Your task to perform on an android device: Open calendar and show me the first week of next month Image 0: 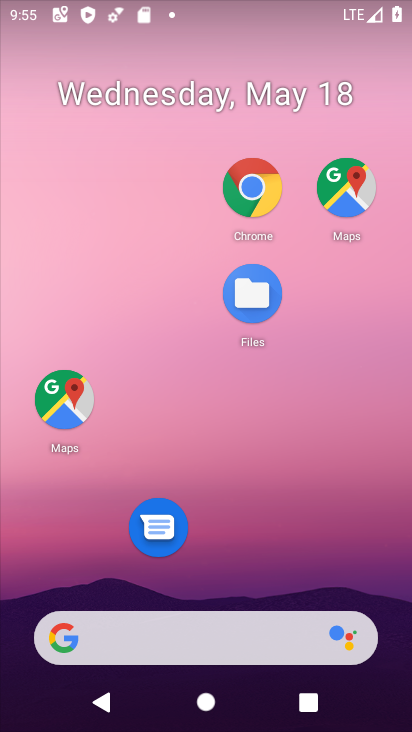
Step 0: drag from (304, 479) to (316, 227)
Your task to perform on an android device: Open calendar and show me the first week of next month Image 1: 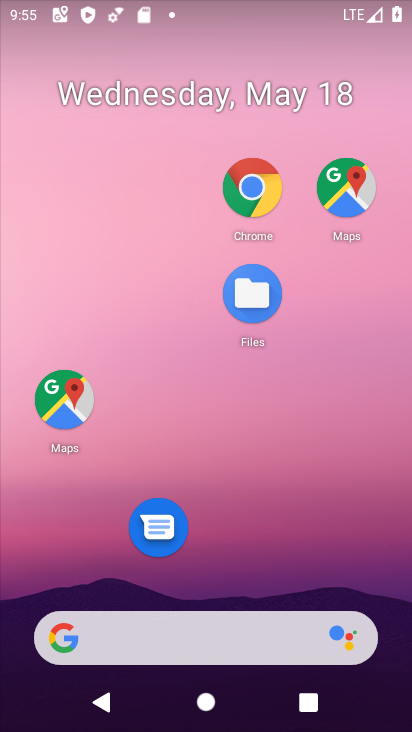
Step 1: drag from (313, 545) to (296, 107)
Your task to perform on an android device: Open calendar and show me the first week of next month Image 2: 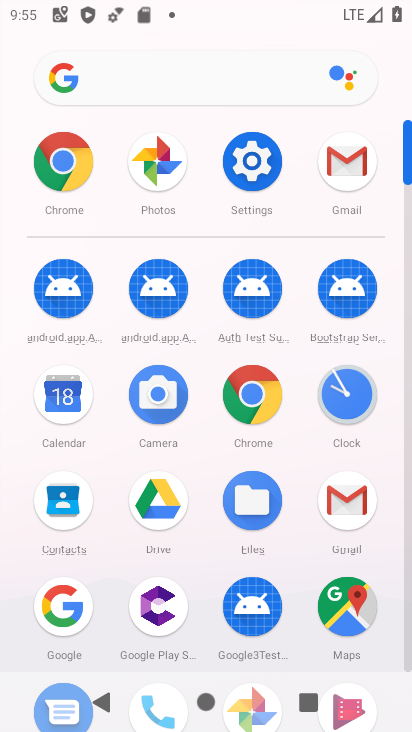
Step 2: click (70, 399)
Your task to perform on an android device: Open calendar and show me the first week of next month Image 3: 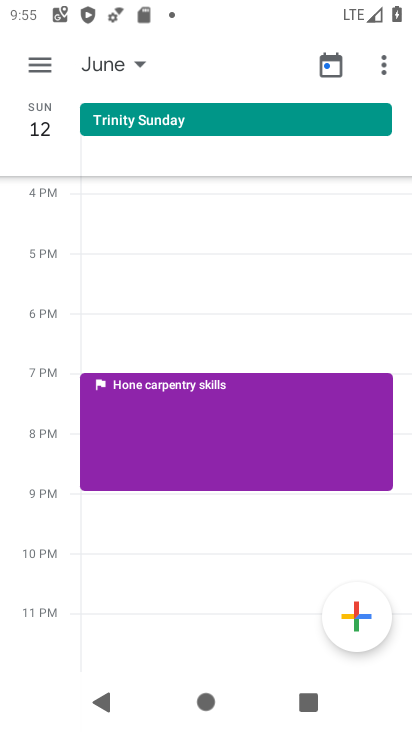
Step 3: click (38, 56)
Your task to perform on an android device: Open calendar and show me the first week of next month Image 4: 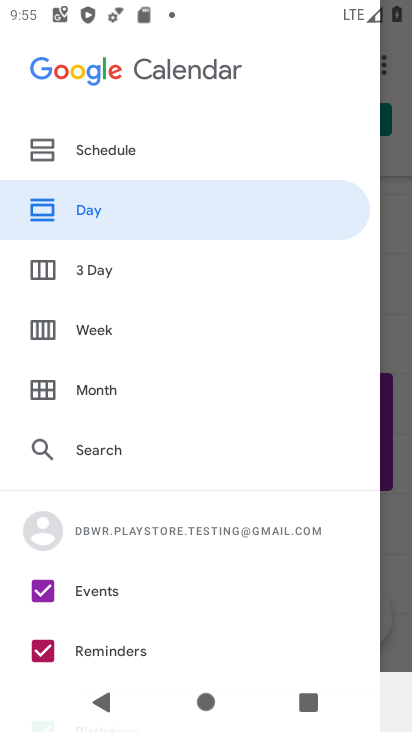
Step 4: click (185, 335)
Your task to perform on an android device: Open calendar and show me the first week of next month Image 5: 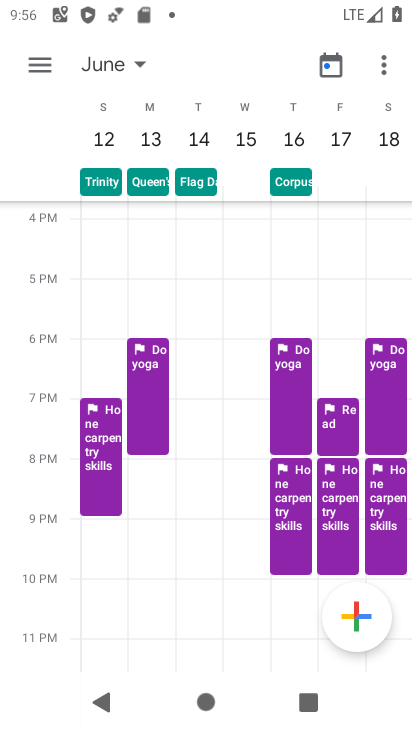
Step 5: task complete